Your task to perform on an android device: Search for seafood restaurants on Google Maps Image 0: 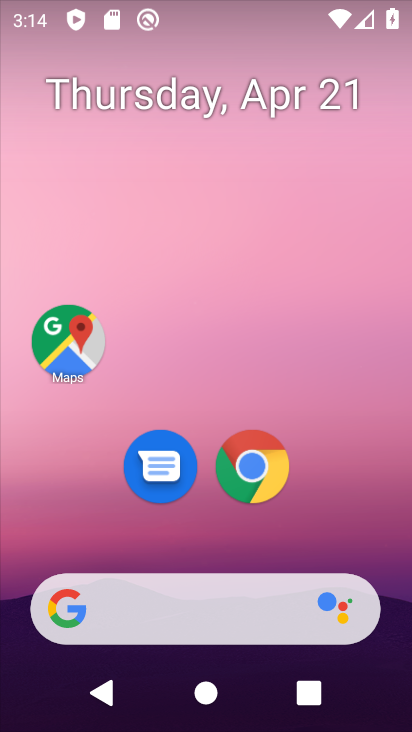
Step 0: click (80, 362)
Your task to perform on an android device: Search for seafood restaurants on Google Maps Image 1: 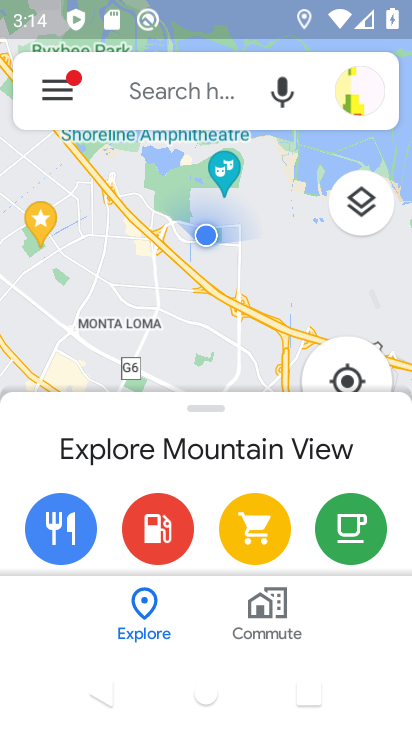
Step 1: click (182, 95)
Your task to perform on an android device: Search for seafood restaurants on Google Maps Image 2: 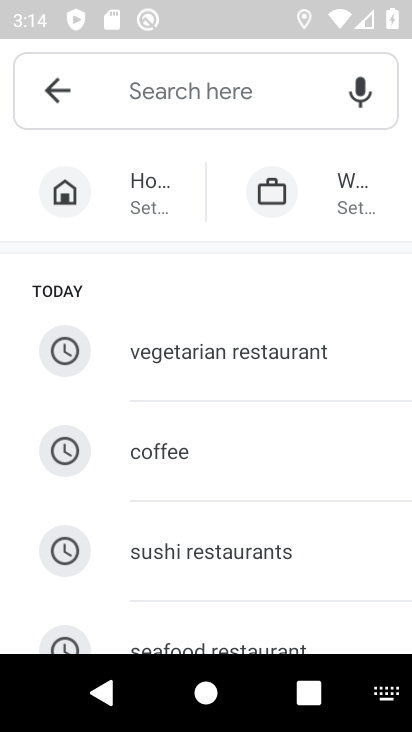
Step 2: type "seafood restaurants"
Your task to perform on an android device: Search for seafood restaurants on Google Maps Image 3: 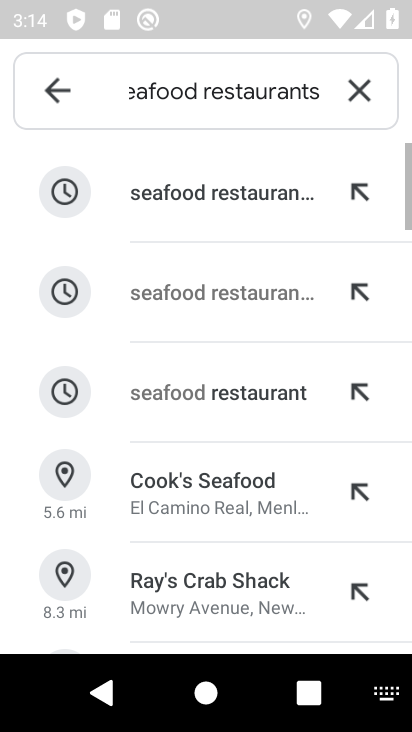
Step 3: click (216, 190)
Your task to perform on an android device: Search for seafood restaurants on Google Maps Image 4: 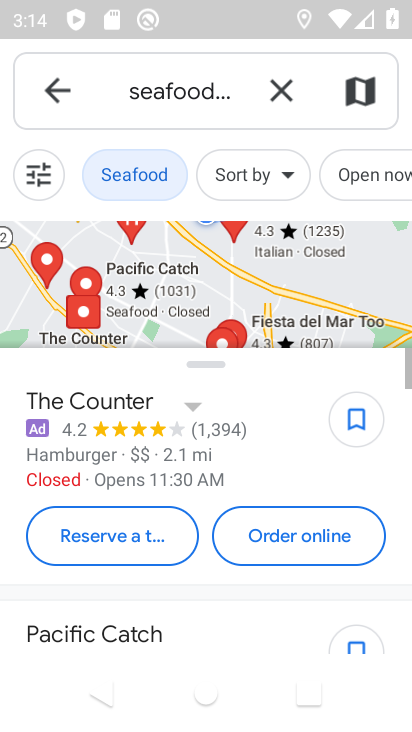
Step 4: task complete